Your task to perform on an android device: Go to accessibility settings Image 0: 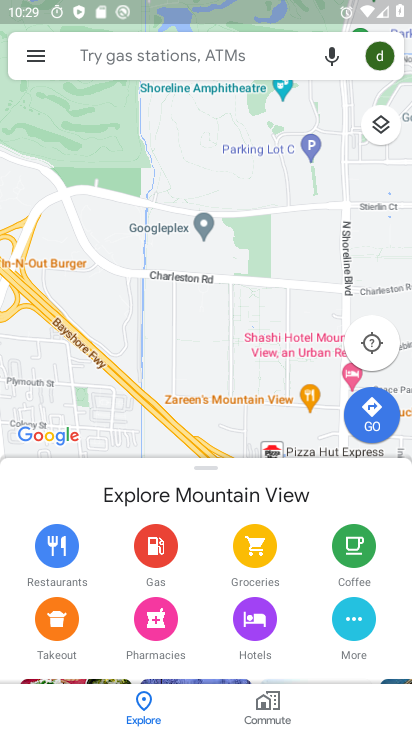
Step 0: press home button
Your task to perform on an android device: Go to accessibility settings Image 1: 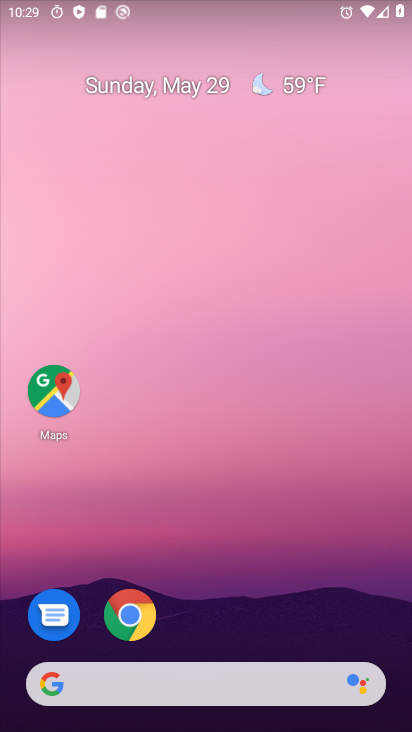
Step 1: drag from (203, 612) to (240, 97)
Your task to perform on an android device: Go to accessibility settings Image 2: 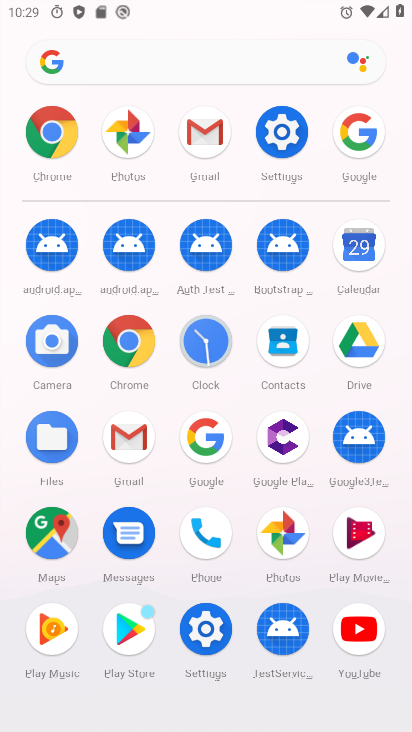
Step 2: click (276, 132)
Your task to perform on an android device: Go to accessibility settings Image 3: 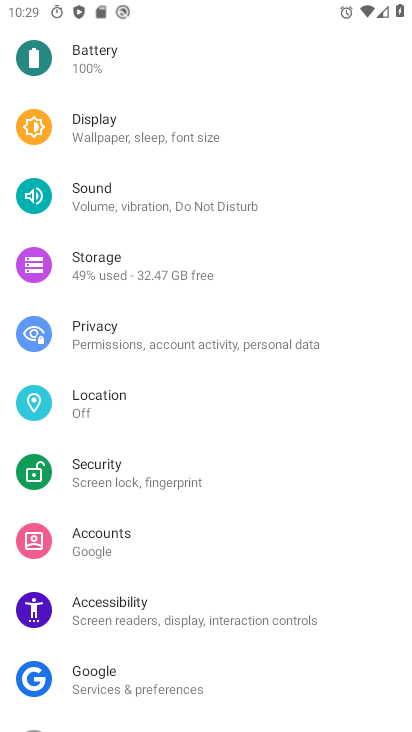
Step 3: drag from (209, 594) to (219, 196)
Your task to perform on an android device: Go to accessibility settings Image 4: 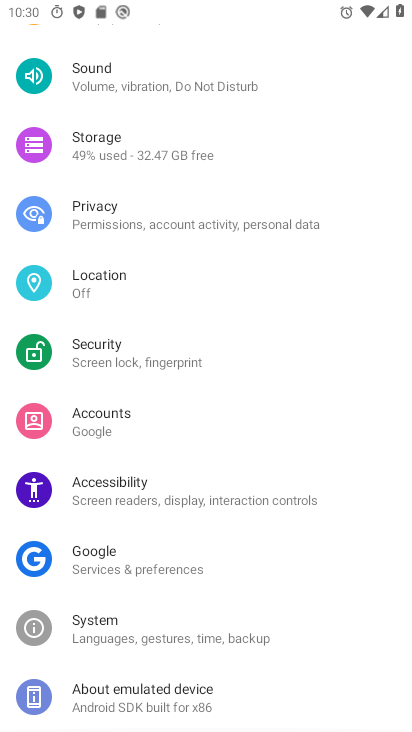
Step 4: click (136, 485)
Your task to perform on an android device: Go to accessibility settings Image 5: 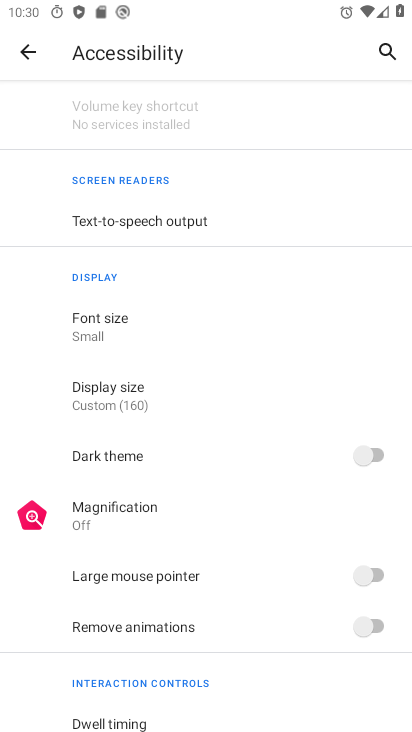
Step 5: task complete